Your task to perform on an android device: change text size in settings app Image 0: 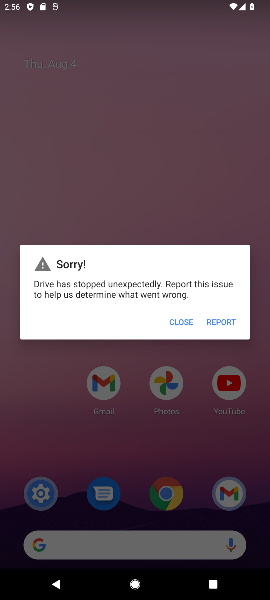
Step 0: click (174, 322)
Your task to perform on an android device: change text size in settings app Image 1: 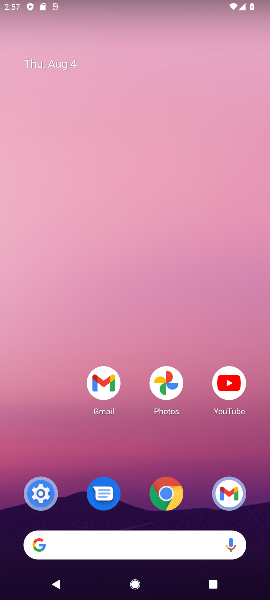
Step 1: drag from (146, 531) to (162, 272)
Your task to perform on an android device: change text size in settings app Image 2: 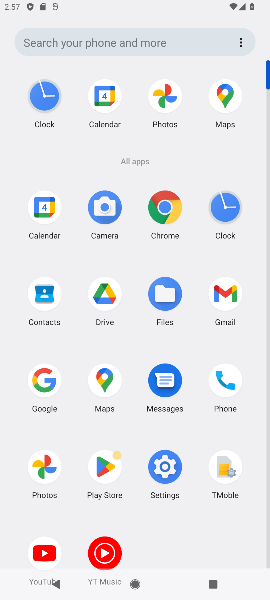
Step 2: click (176, 452)
Your task to perform on an android device: change text size in settings app Image 3: 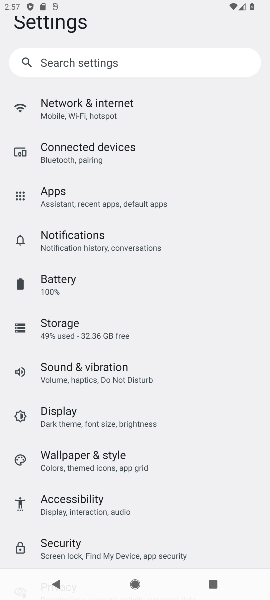
Step 3: drag from (103, 497) to (88, 307)
Your task to perform on an android device: change text size in settings app Image 4: 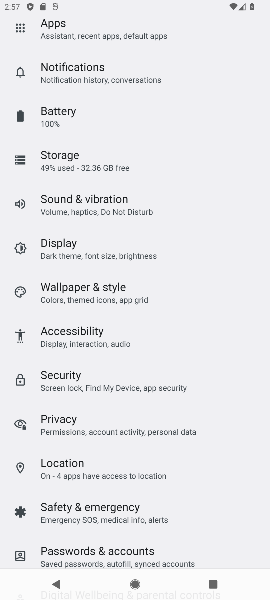
Step 4: click (48, 347)
Your task to perform on an android device: change text size in settings app Image 5: 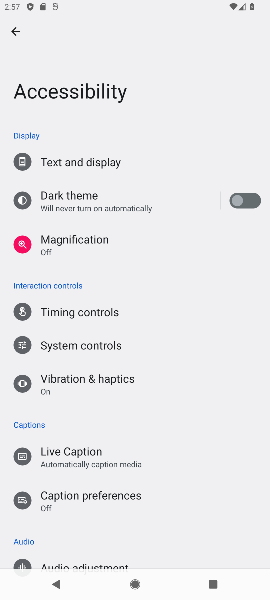
Step 5: click (73, 157)
Your task to perform on an android device: change text size in settings app Image 6: 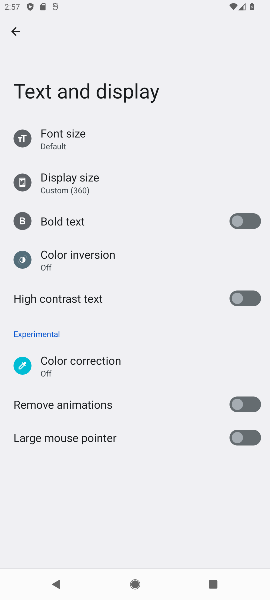
Step 6: click (68, 130)
Your task to perform on an android device: change text size in settings app Image 7: 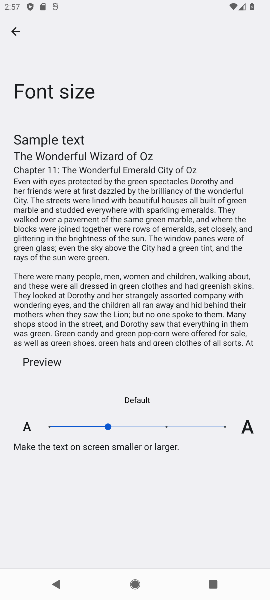
Step 7: click (119, 423)
Your task to perform on an android device: change text size in settings app Image 8: 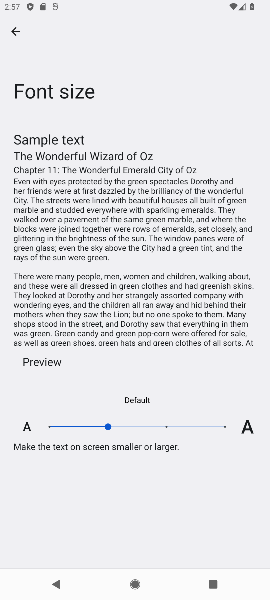
Step 8: click (141, 420)
Your task to perform on an android device: change text size in settings app Image 9: 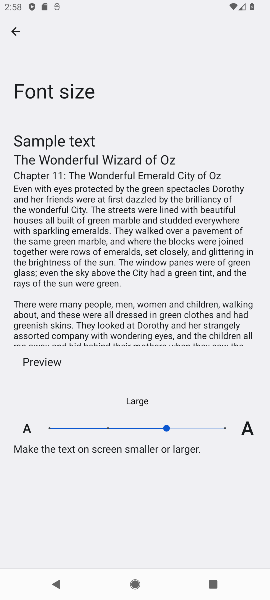
Step 9: task complete